Your task to perform on an android device: choose inbox layout in the gmail app Image 0: 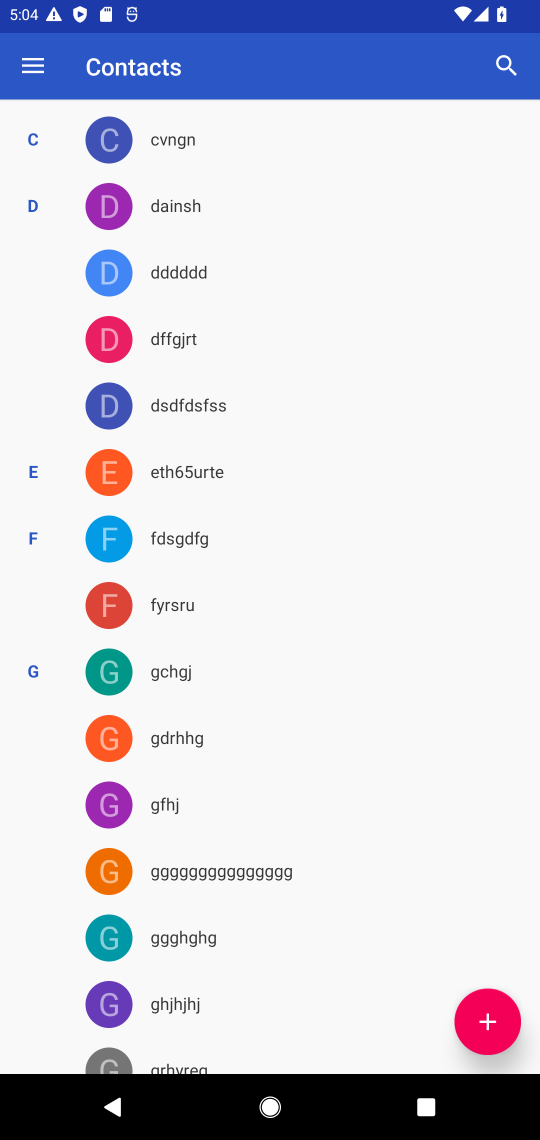
Step 0: press back button
Your task to perform on an android device: choose inbox layout in the gmail app Image 1: 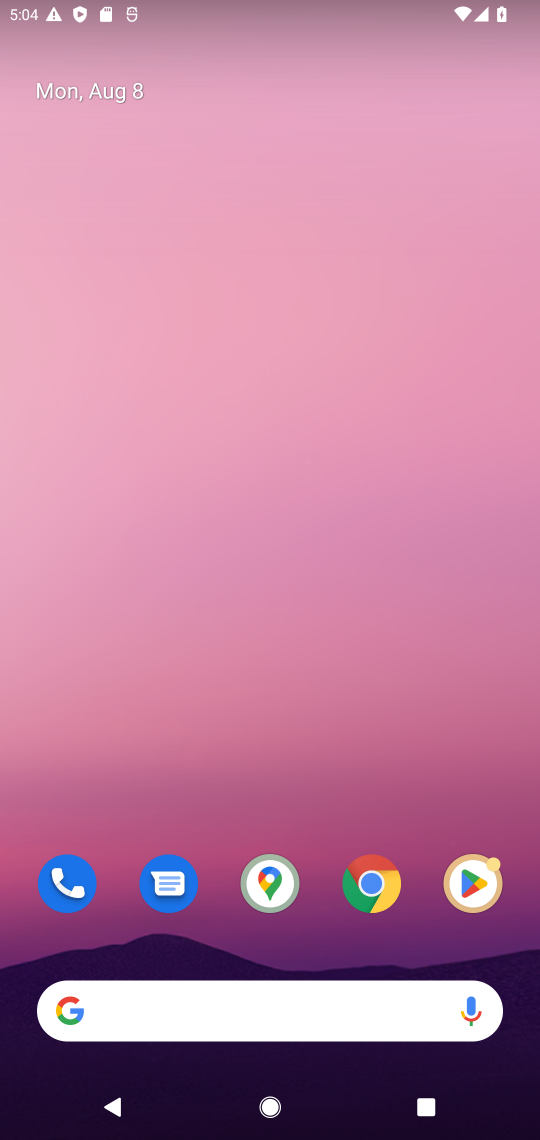
Step 1: drag from (379, 896) to (305, 449)
Your task to perform on an android device: choose inbox layout in the gmail app Image 2: 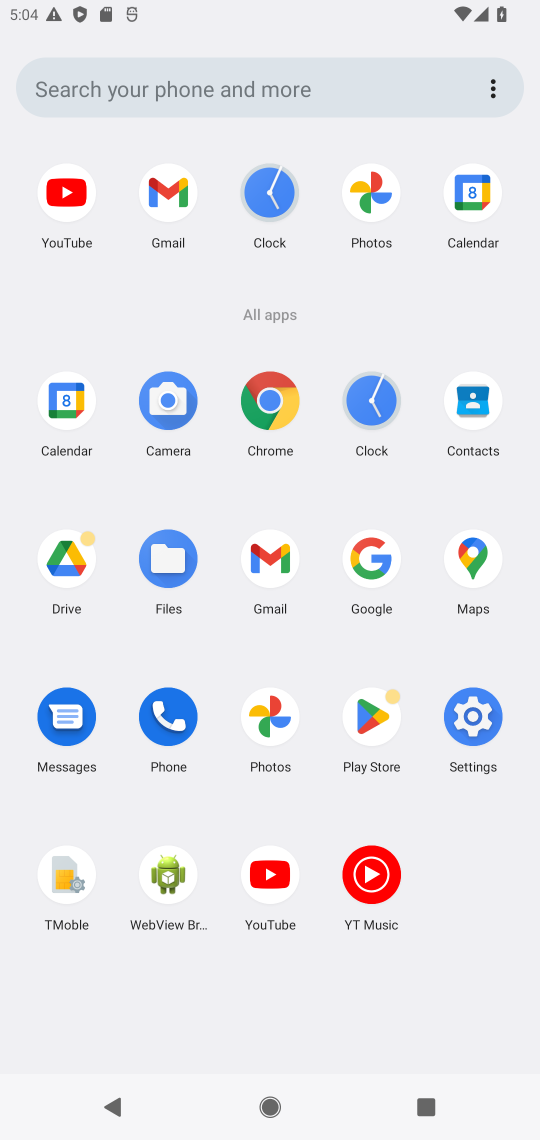
Step 2: drag from (255, 883) to (175, 337)
Your task to perform on an android device: choose inbox layout in the gmail app Image 3: 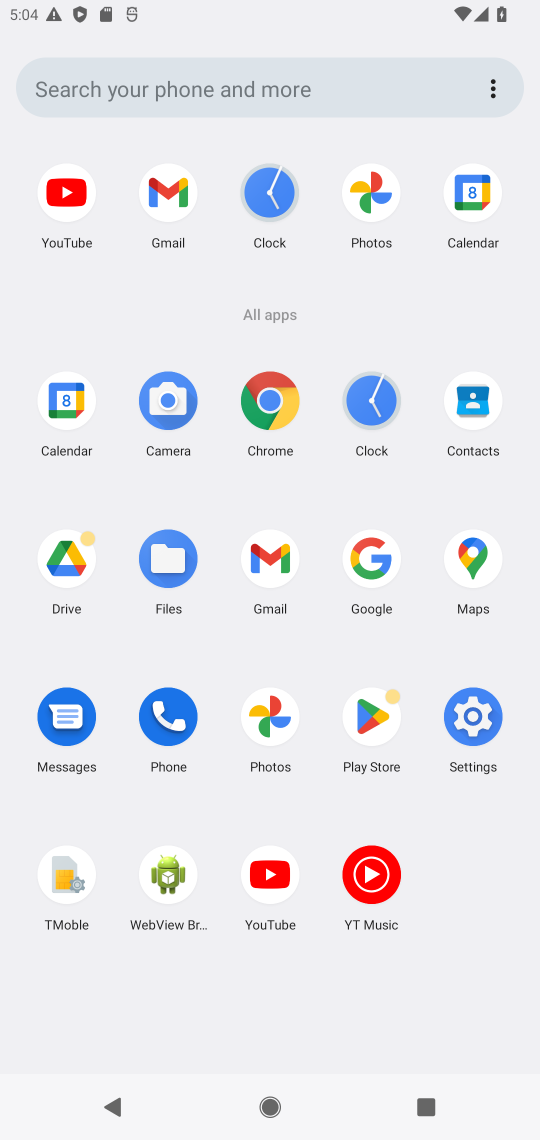
Step 3: click (268, 547)
Your task to perform on an android device: choose inbox layout in the gmail app Image 4: 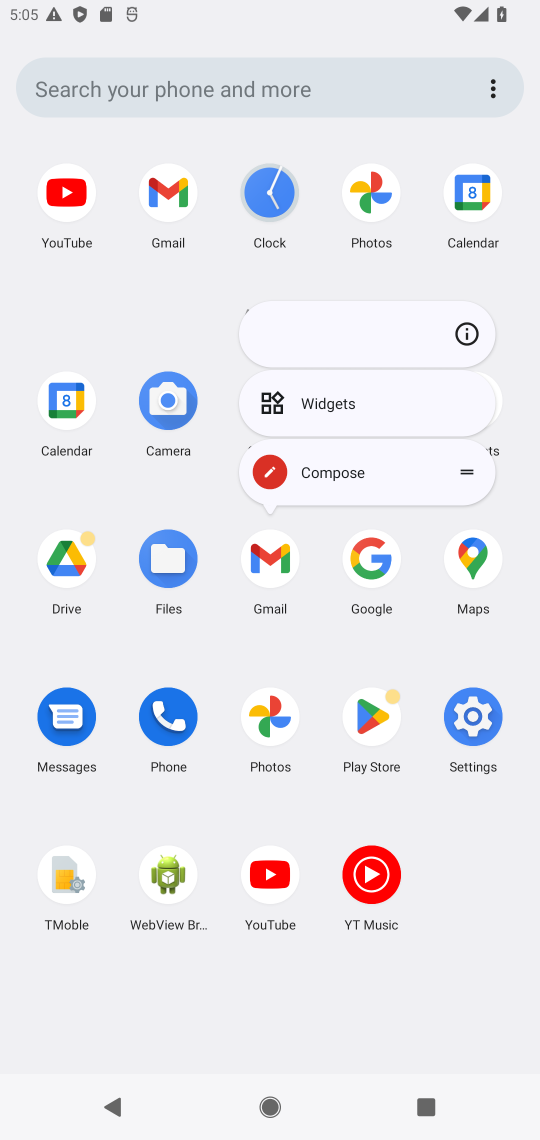
Step 4: click (273, 566)
Your task to perform on an android device: choose inbox layout in the gmail app Image 5: 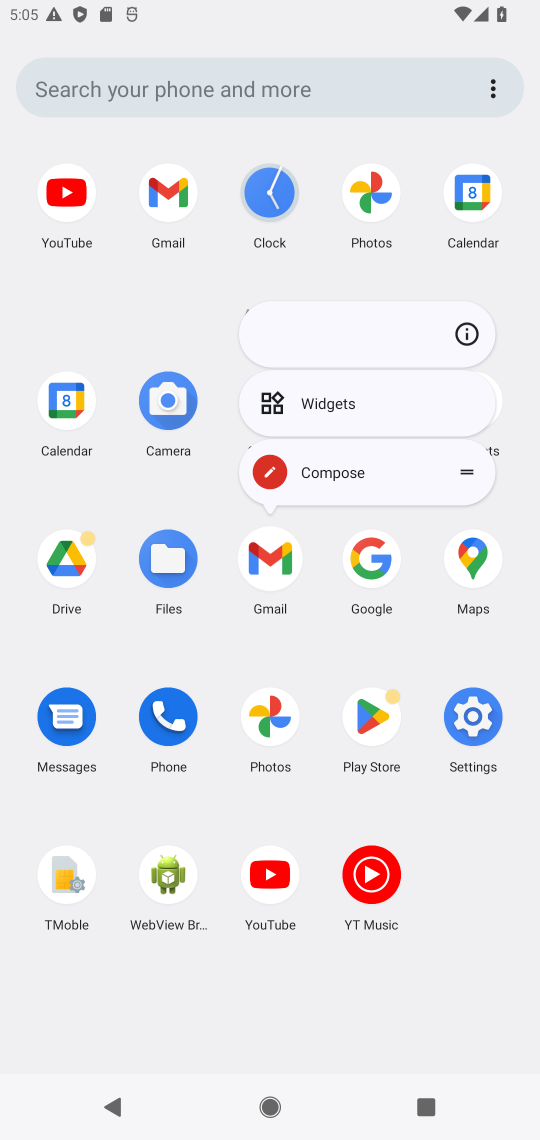
Step 5: click (273, 568)
Your task to perform on an android device: choose inbox layout in the gmail app Image 6: 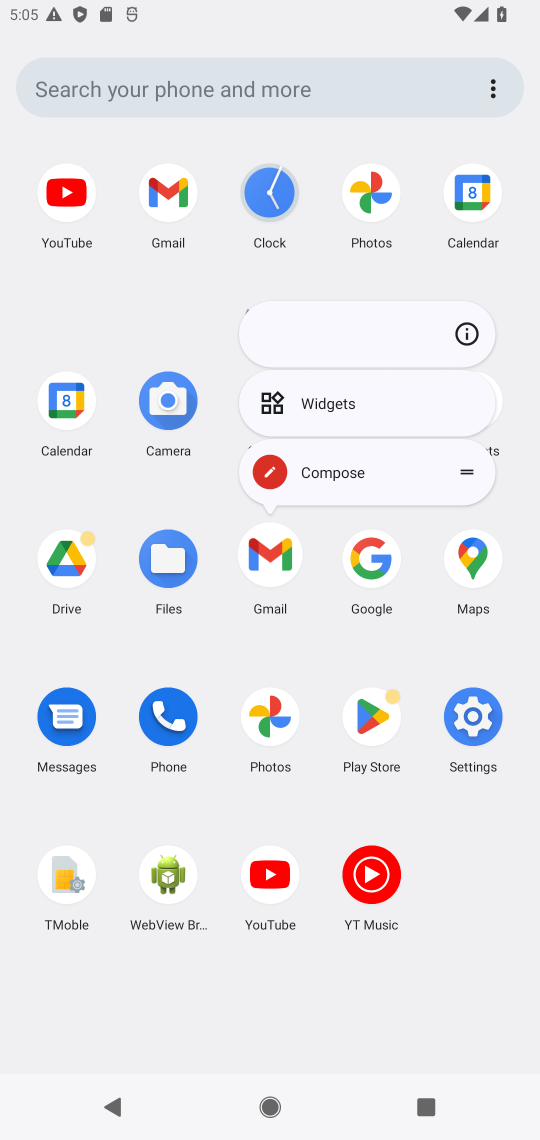
Step 6: click (272, 559)
Your task to perform on an android device: choose inbox layout in the gmail app Image 7: 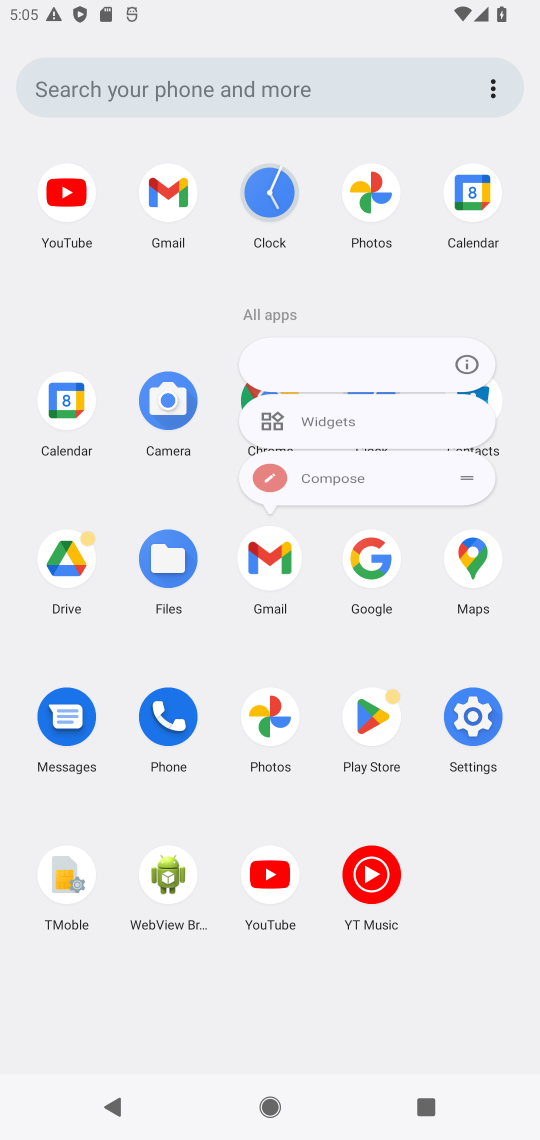
Step 7: click (263, 529)
Your task to perform on an android device: choose inbox layout in the gmail app Image 8: 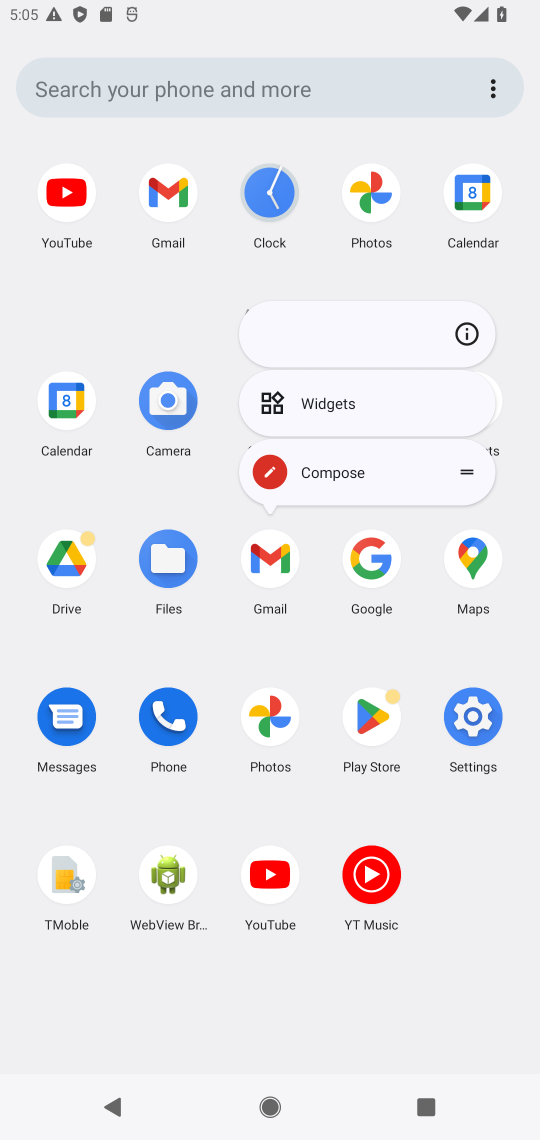
Step 8: click (271, 535)
Your task to perform on an android device: choose inbox layout in the gmail app Image 9: 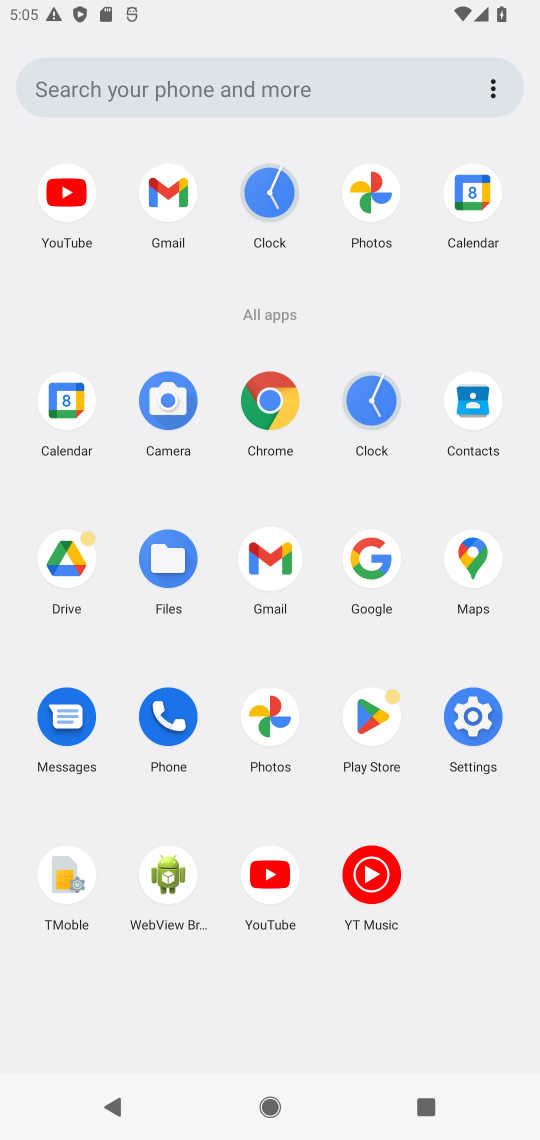
Step 9: click (277, 562)
Your task to perform on an android device: choose inbox layout in the gmail app Image 10: 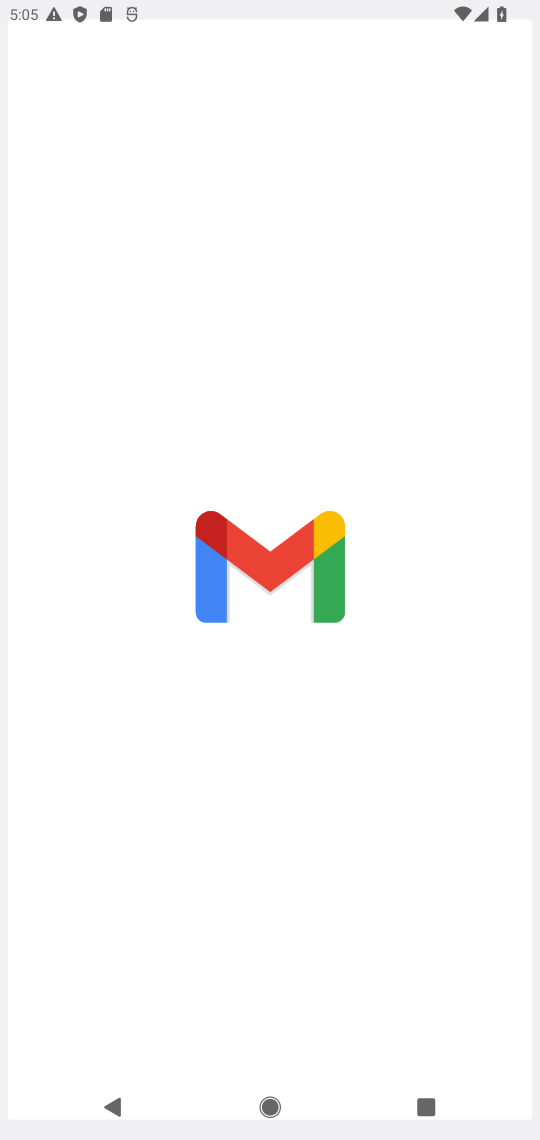
Step 10: click (280, 571)
Your task to perform on an android device: choose inbox layout in the gmail app Image 11: 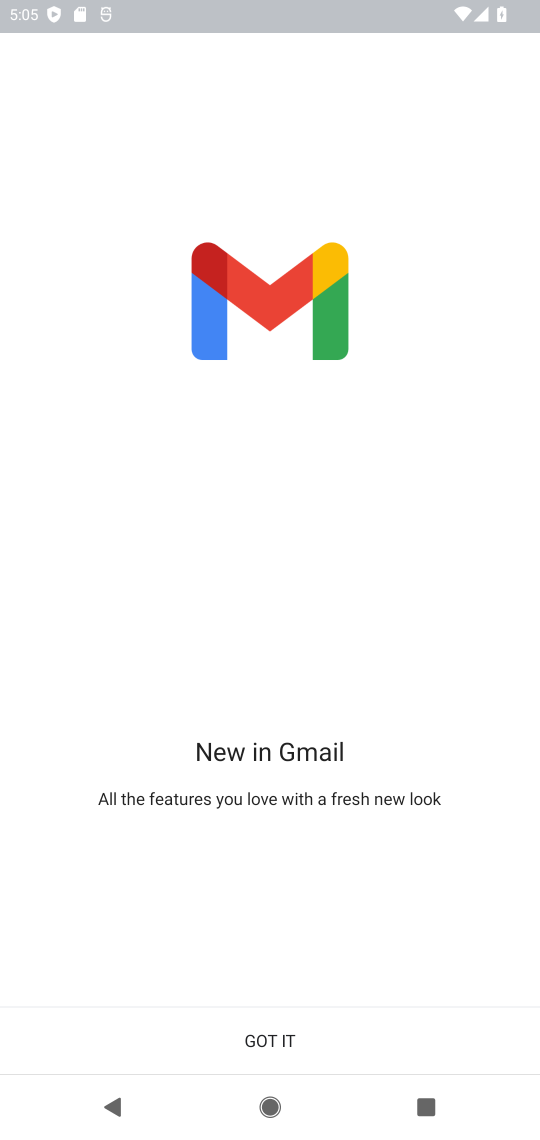
Step 11: click (288, 1022)
Your task to perform on an android device: choose inbox layout in the gmail app Image 12: 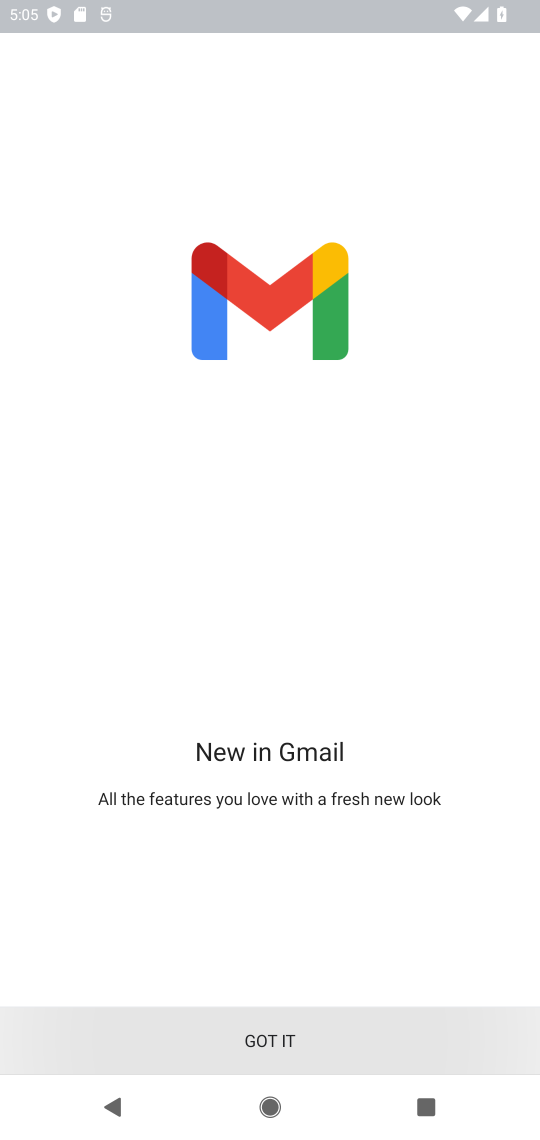
Step 12: click (288, 1022)
Your task to perform on an android device: choose inbox layout in the gmail app Image 13: 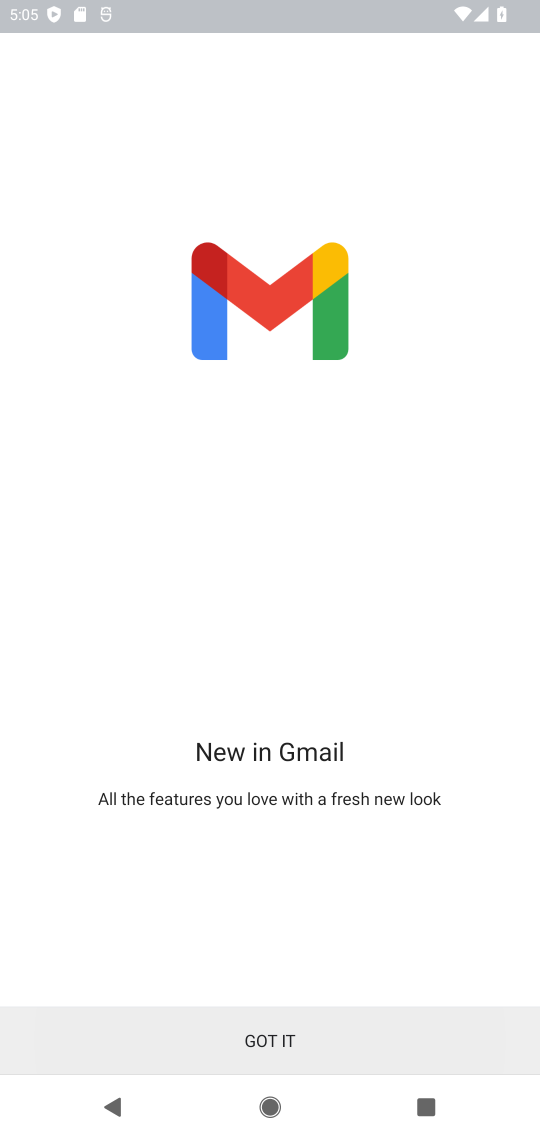
Step 13: click (288, 1022)
Your task to perform on an android device: choose inbox layout in the gmail app Image 14: 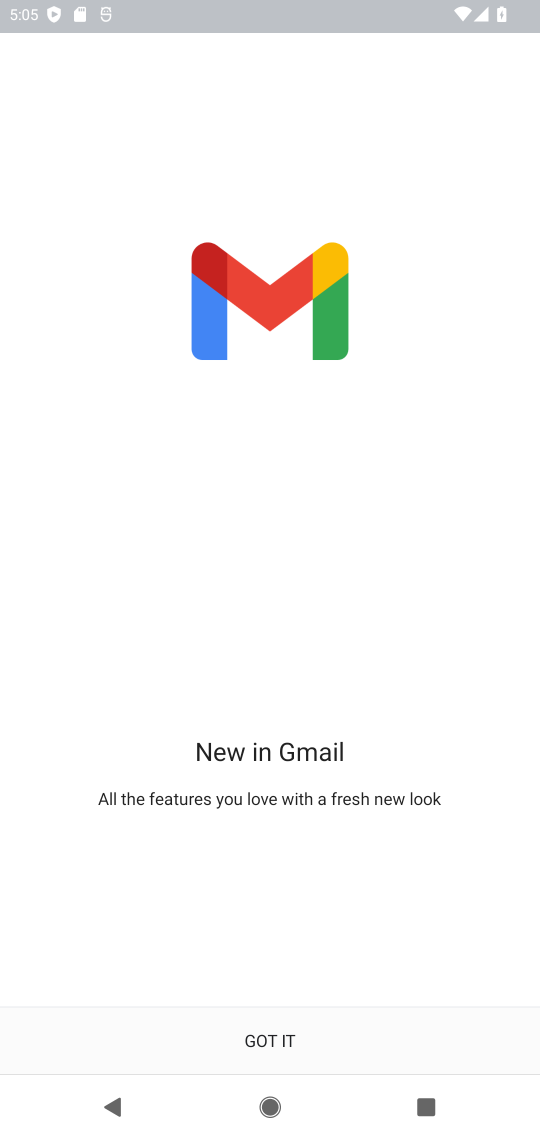
Step 14: click (286, 1023)
Your task to perform on an android device: choose inbox layout in the gmail app Image 15: 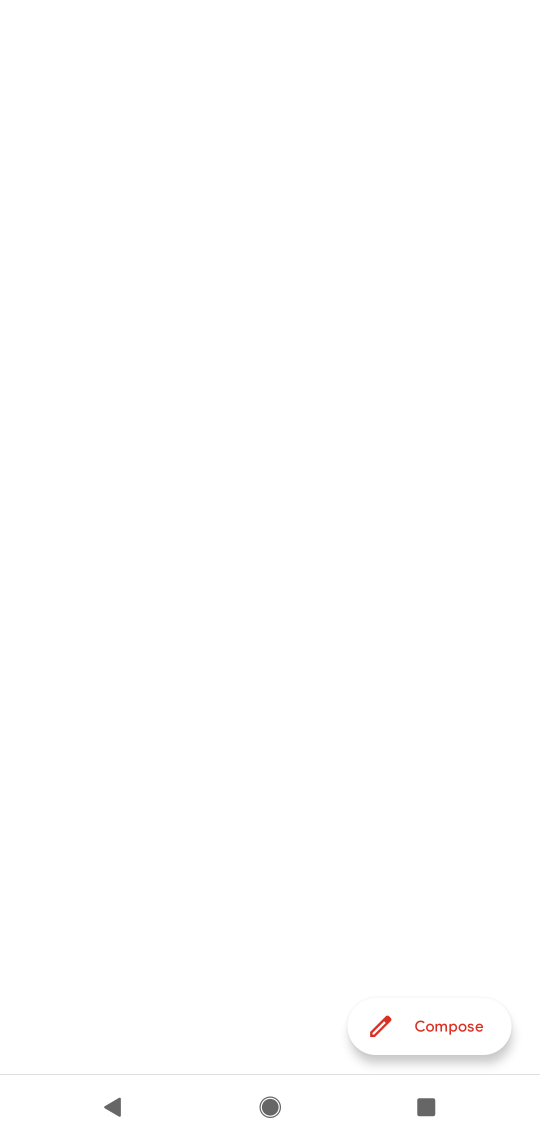
Step 15: click (297, 1015)
Your task to perform on an android device: choose inbox layout in the gmail app Image 16: 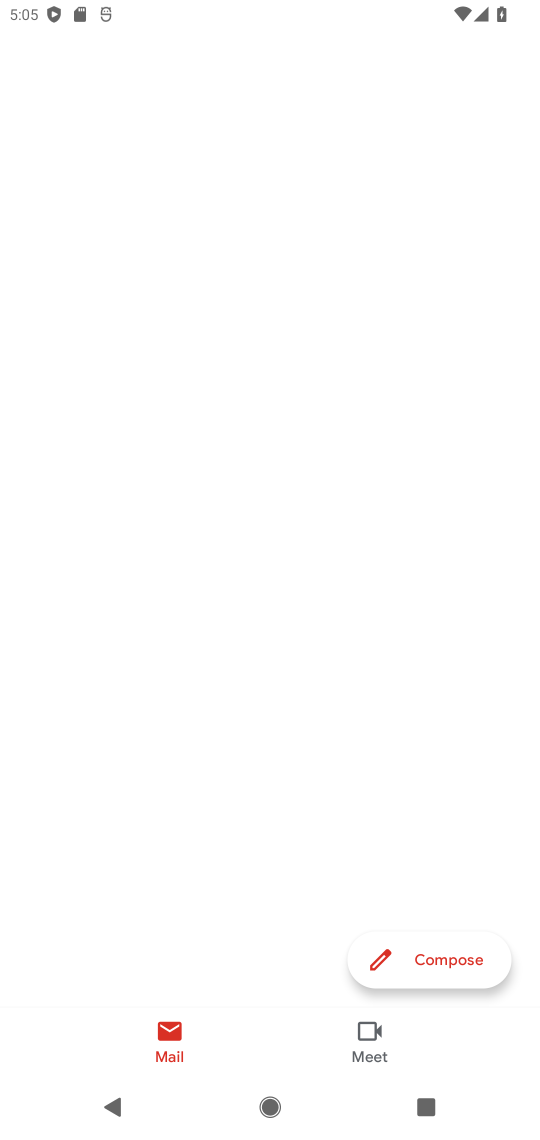
Step 16: click (294, 1035)
Your task to perform on an android device: choose inbox layout in the gmail app Image 17: 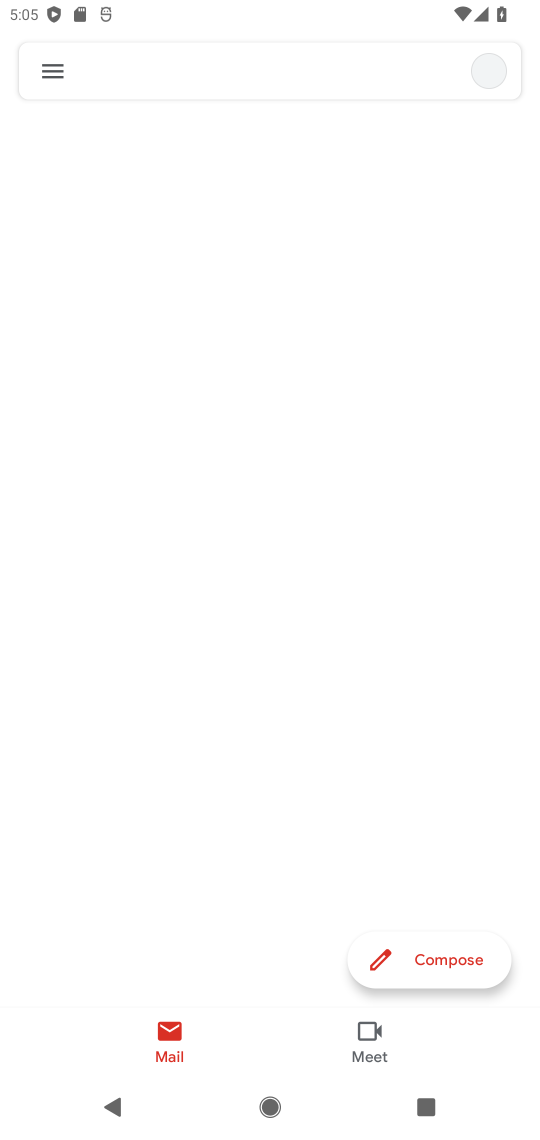
Step 17: click (294, 1035)
Your task to perform on an android device: choose inbox layout in the gmail app Image 18: 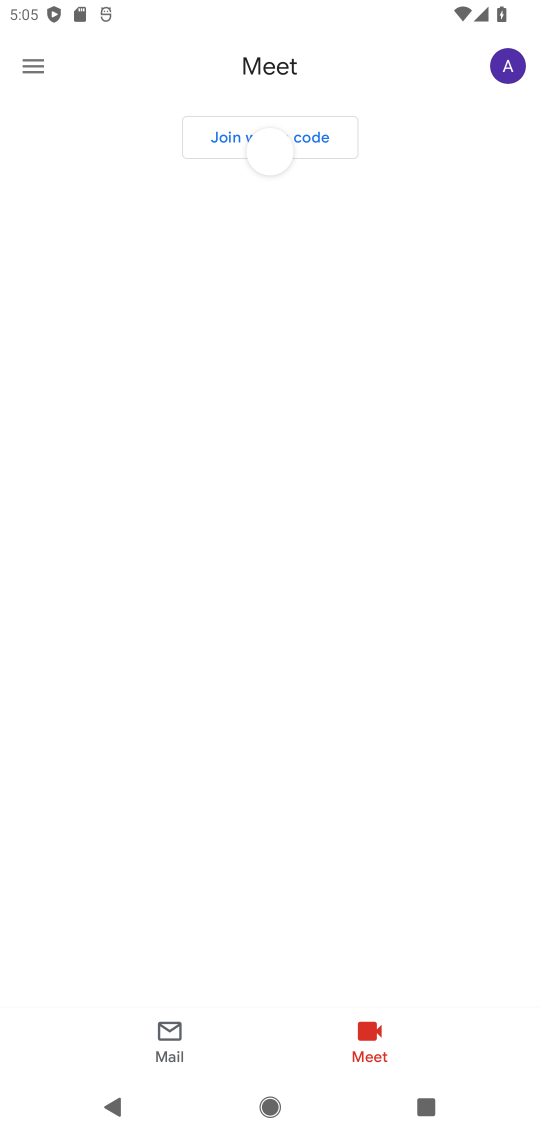
Step 18: click (56, 72)
Your task to perform on an android device: choose inbox layout in the gmail app Image 19: 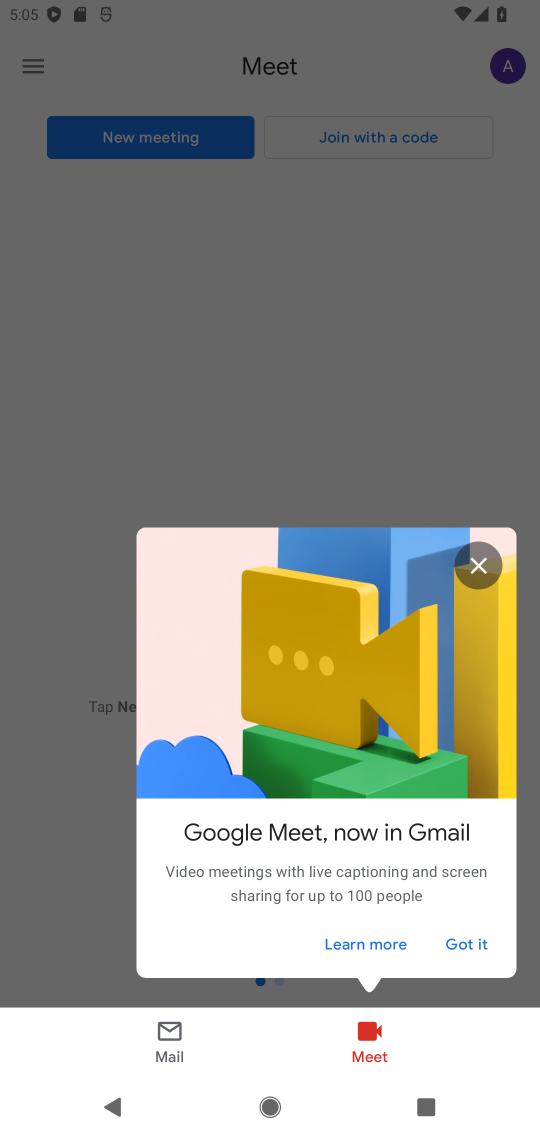
Step 19: click (59, 80)
Your task to perform on an android device: choose inbox layout in the gmail app Image 20: 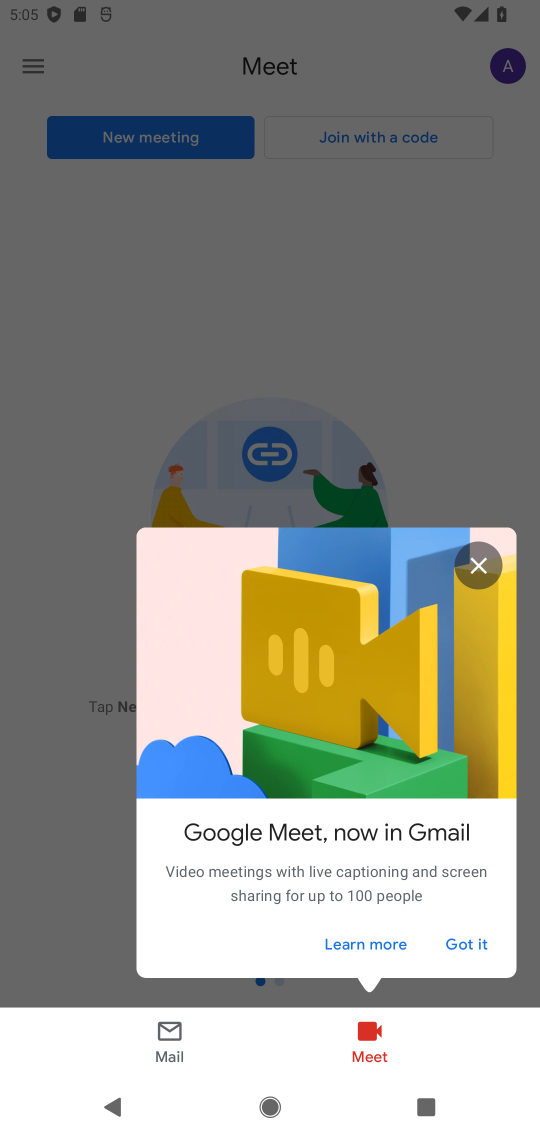
Step 20: click (59, 91)
Your task to perform on an android device: choose inbox layout in the gmail app Image 21: 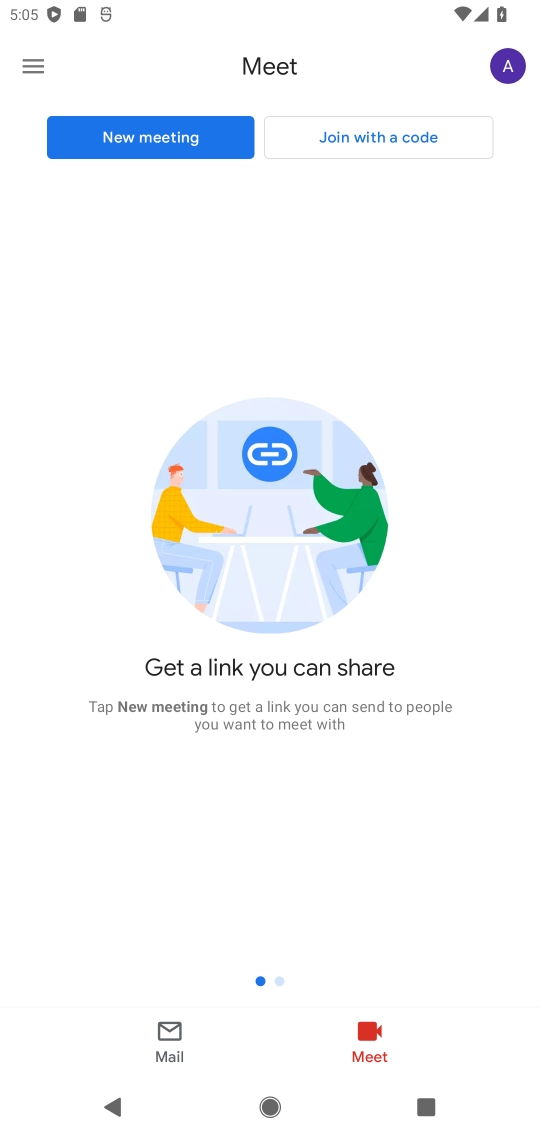
Step 21: drag from (59, 91) to (61, 576)
Your task to perform on an android device: choose inbox layout in the gmail app Image 22: 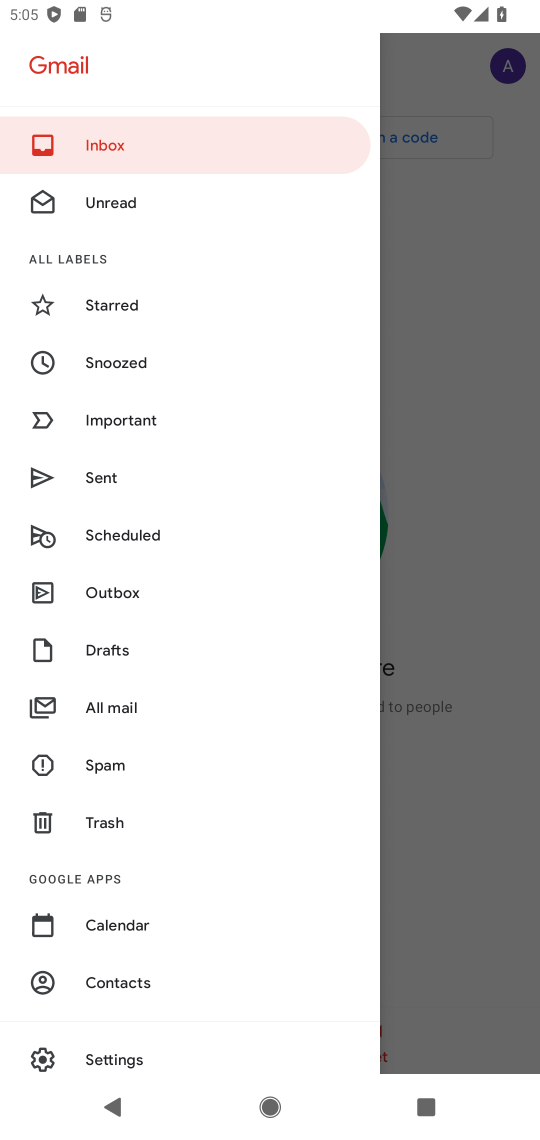
Step 22: click (108, 1054)
Your task to perform on an android device: choose inbox layout in the gmail app Image 23: 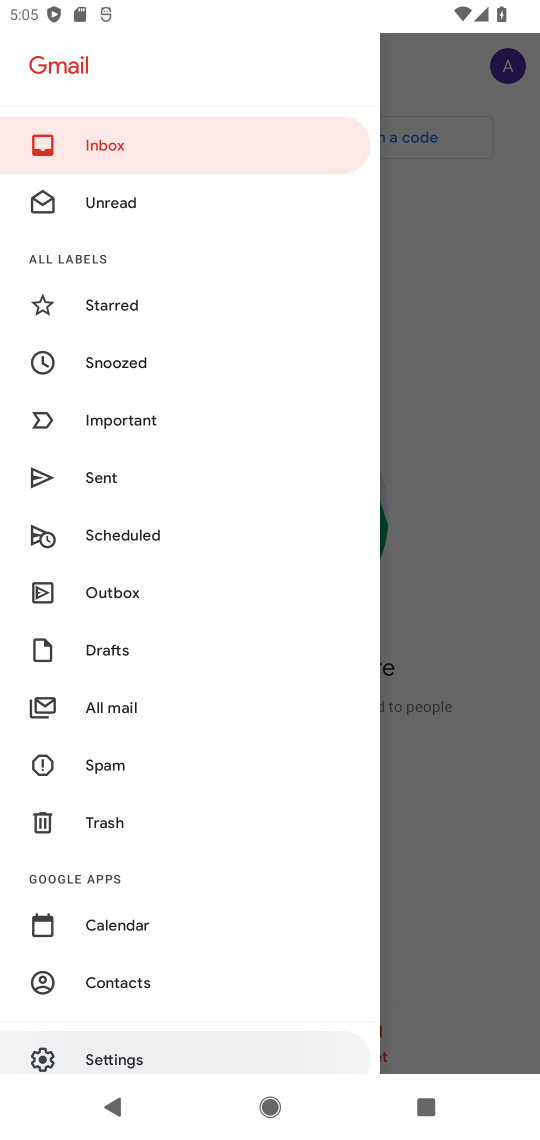
Step 23: click (134, 1045)
Your task to perform on an android device: choose inbox layout in the gmail app Image 24: 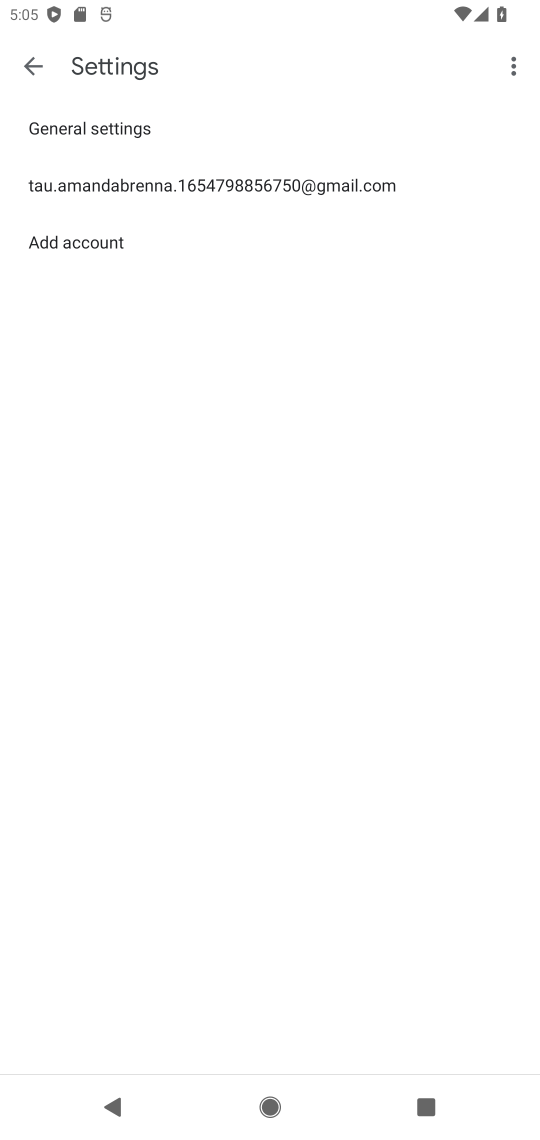
Step 24: click (93, 180)
Your task to perform on an android device: choose inbox layout in the gmail app Image 25: 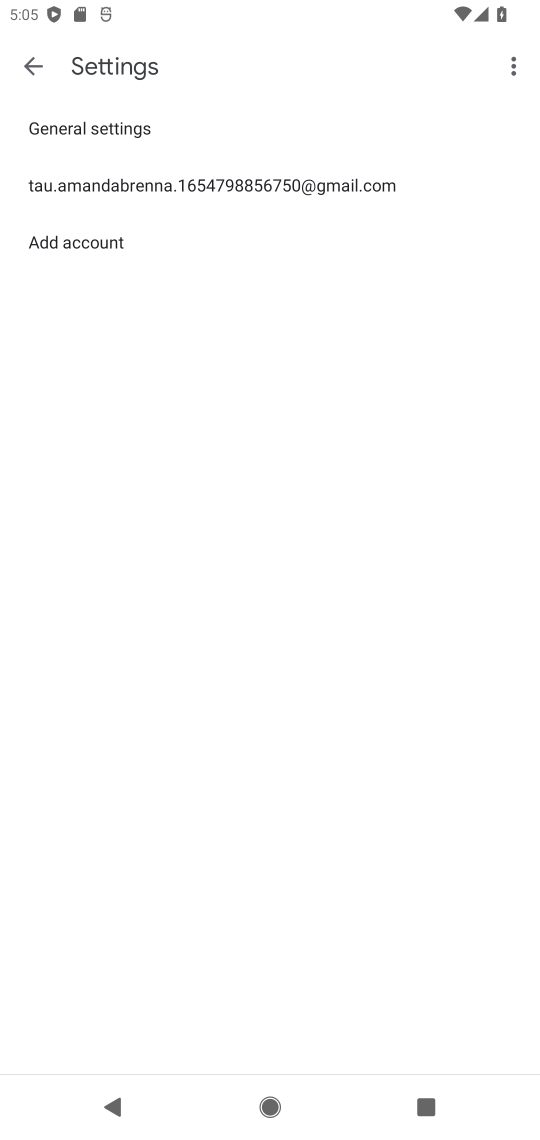
Step 25: click (90, 191)
Your task to perform on an android device: choose inbox layout in the gmail app Image 26: 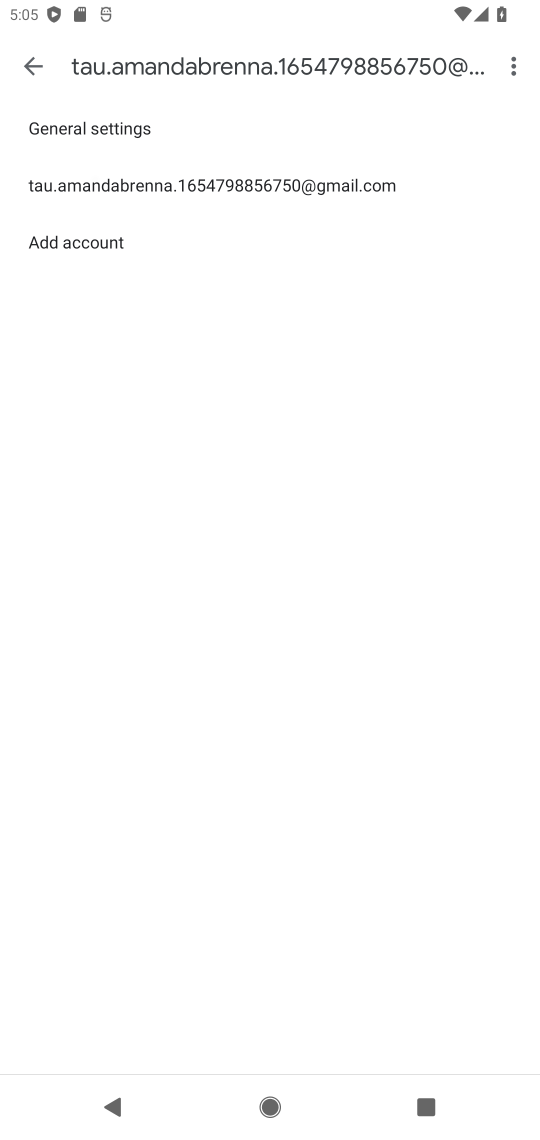
Step 26: click (90, 191)
Your task to perform on an android device: choose inbox layout in the gmail app Image 27: 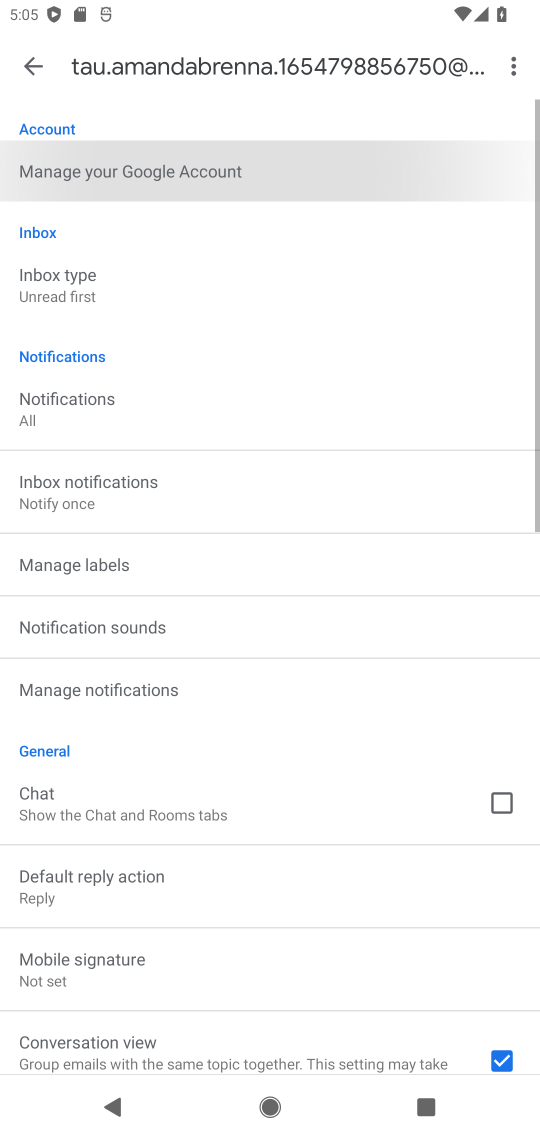
Step 27: click (90, 191)
Your task to perform on an android device: choose inbox layout in the gmail app Image 28: 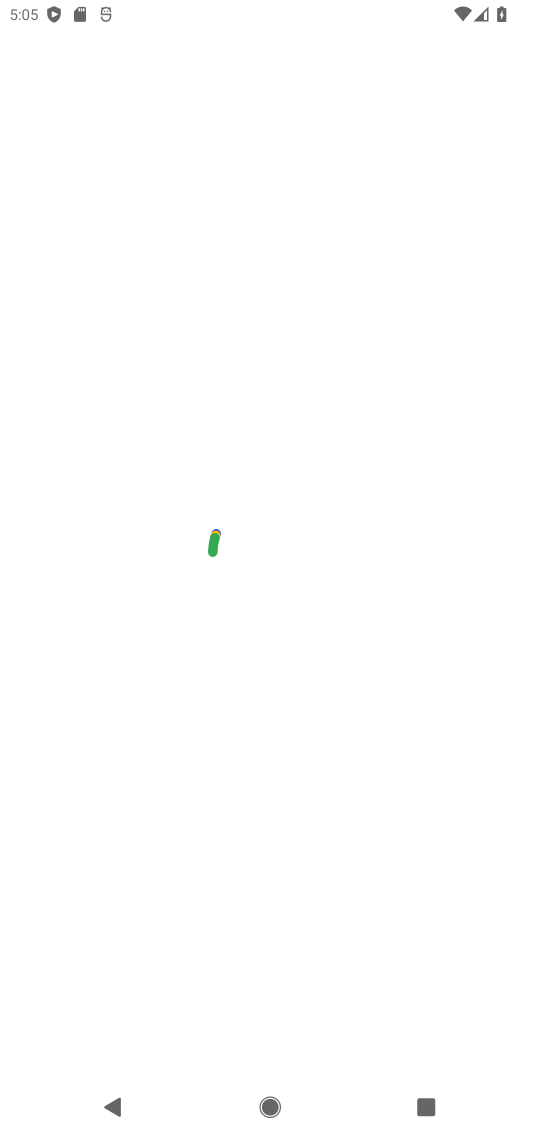
Step 28: press back button
Your task to perform on an android device: choose inbox layout in the gmail app Image 29: 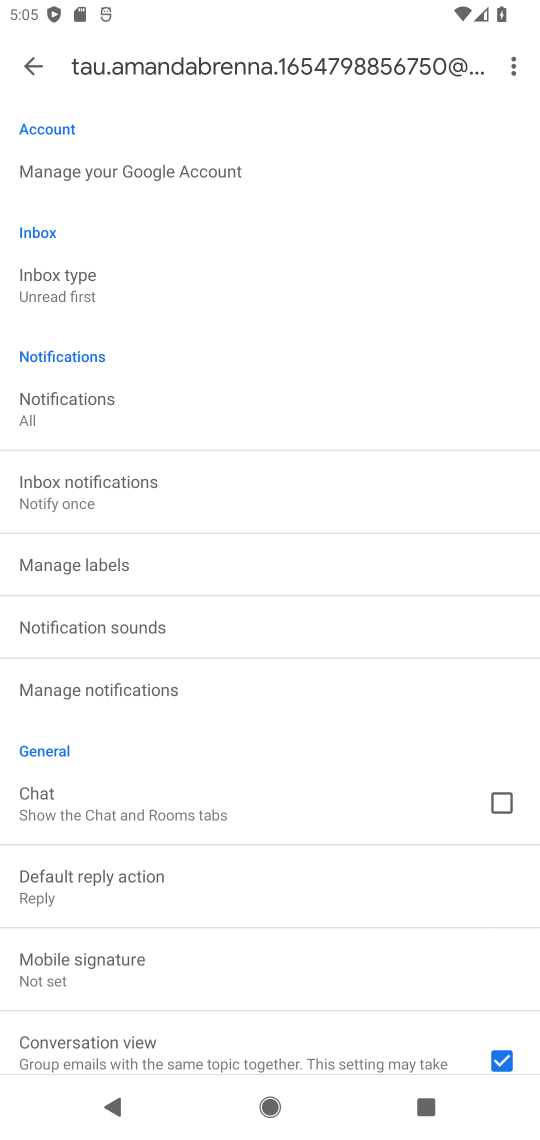
Step 29: click (51, 285)
Your task to perform on an android device: choose inbox layout in the gmail app Image 30: 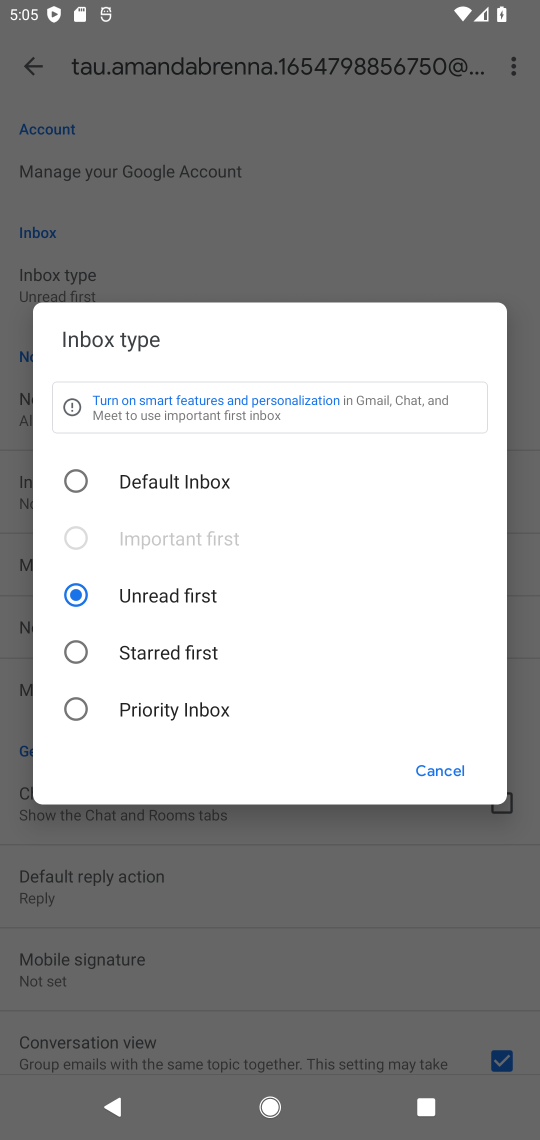
Step 30: click (63, 477)
Your task to perform on an android device: choose inbox layout in the gmail app Image 31: 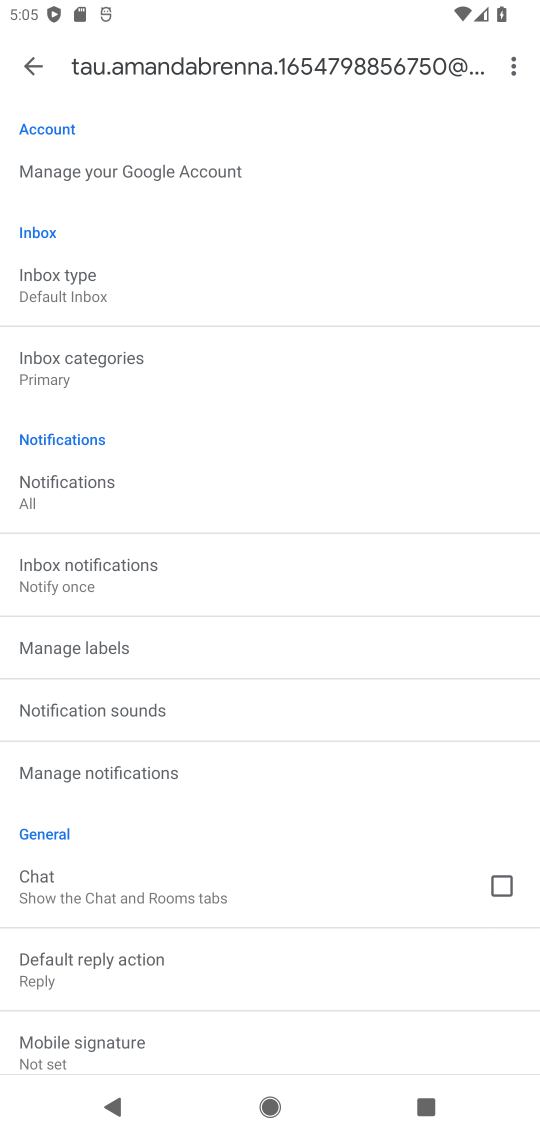
Step 31: task complete